Your task to perform on an android device: change the clock display to digital Image 0: 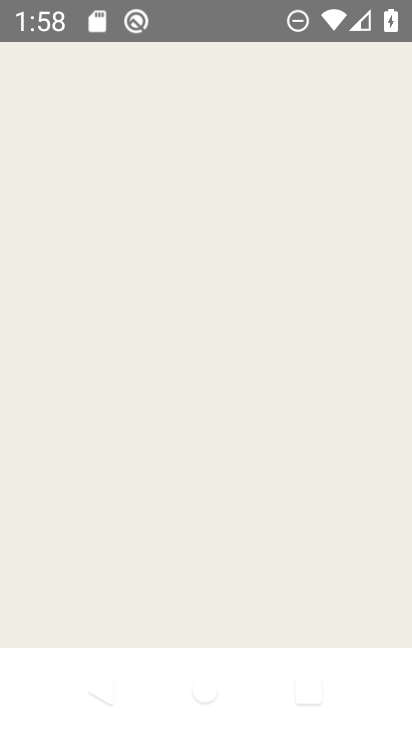
Step 0: press home button
Your task to perform on an android device: change the clock display to digital Image 1: 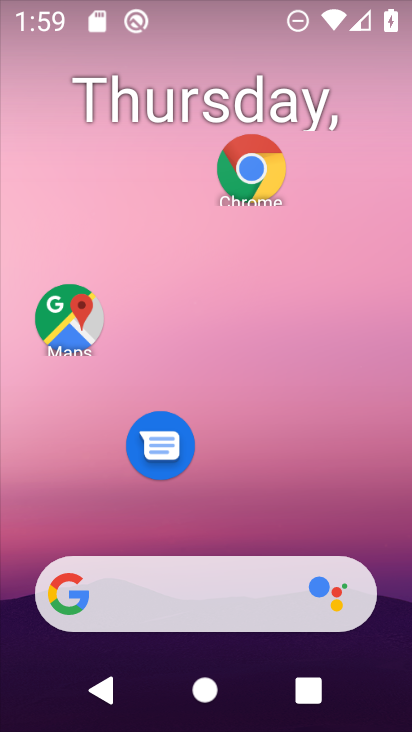
Step 1: drag from (238, 624) to (332, 99)
Your task to perform on an android device: change the clock display to digital Image 2: 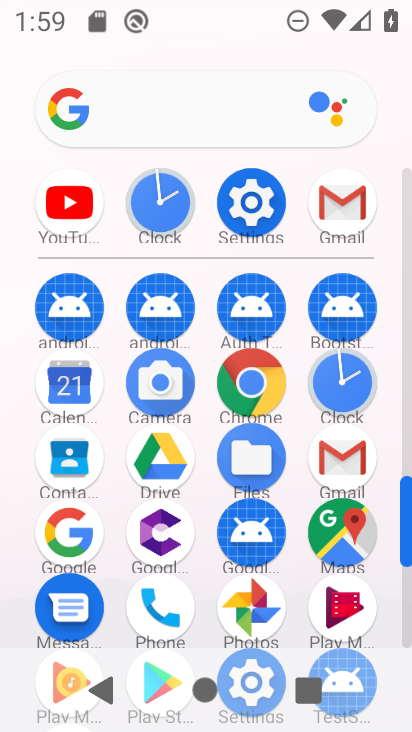
Step 2: click (261, 191)
Your task to perform on an android device: change the clock display to digital Image 3: 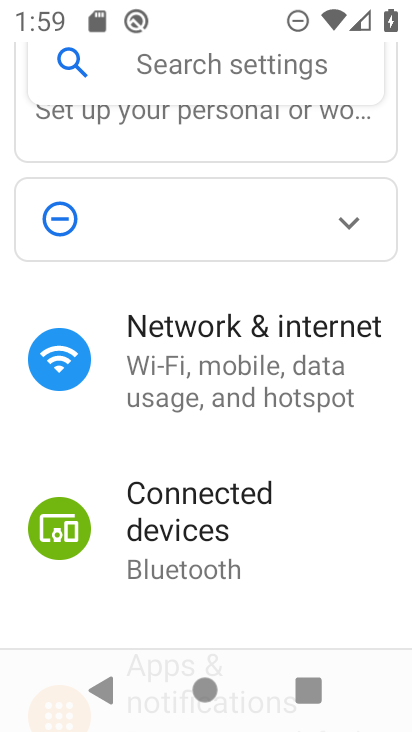
Step 3: drag from (172, 517) to (258, 340)
Your task to perform on an android device: change the clock display to digital Image 4: 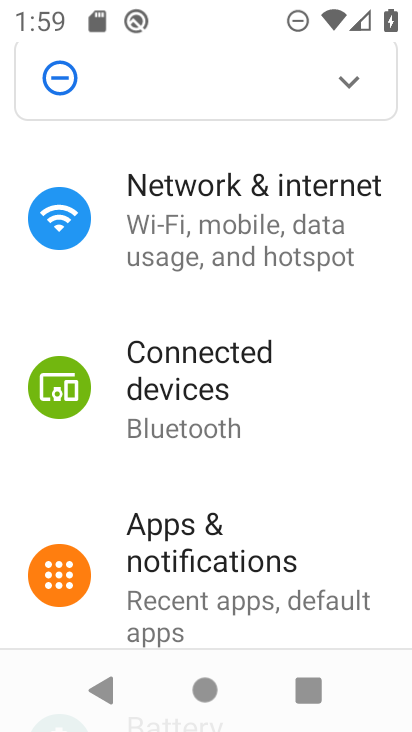
Step 4: drag from (163, 551) to (262, 359)
Your task to perform on an android device: change the clock display to digital Image 5: 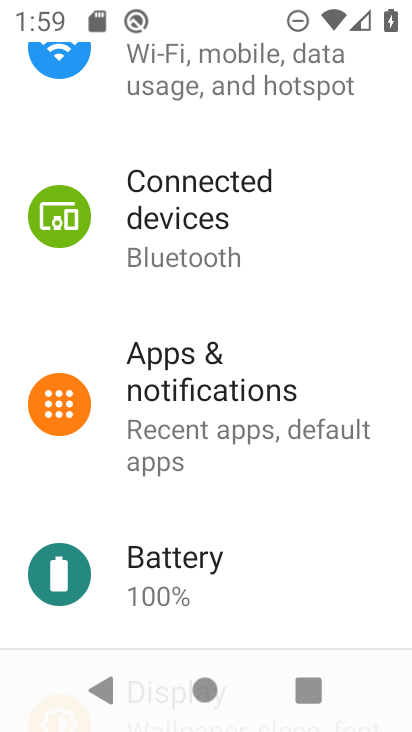
Step 5: drag from (192, 518) to (233, 334)
Your task to perform on an android device: change the clock display to digital Image 6: 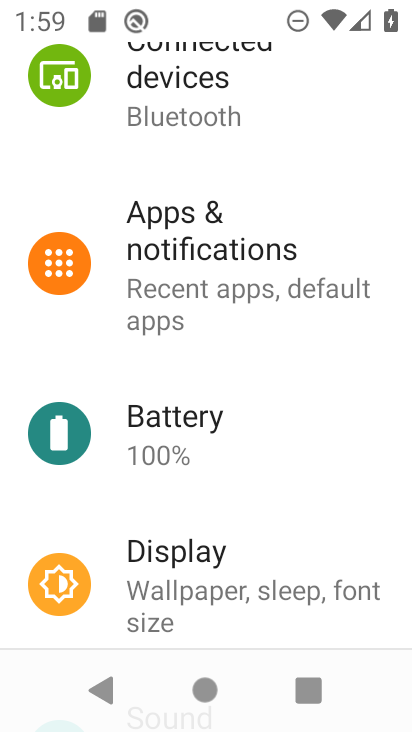
Step 6: click (165, 556)
Your task to perform on an android device: change the clock display to digital Image 7: 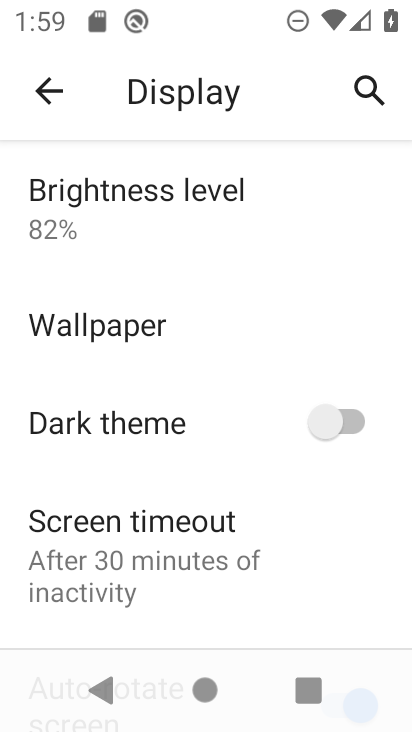
Step 7: drag from (174, 541) to (201, 354)
Your task to perform on an android device: change the clock display to digital Image 8: 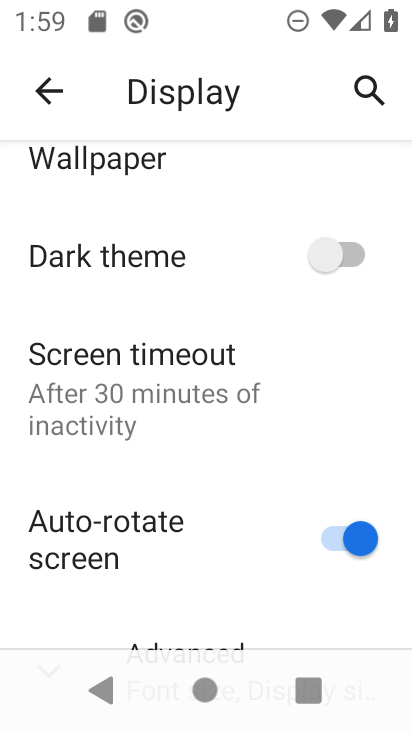
Step 8: press home button
Your task to perform on an android device: change the clock display to digital Image 9: 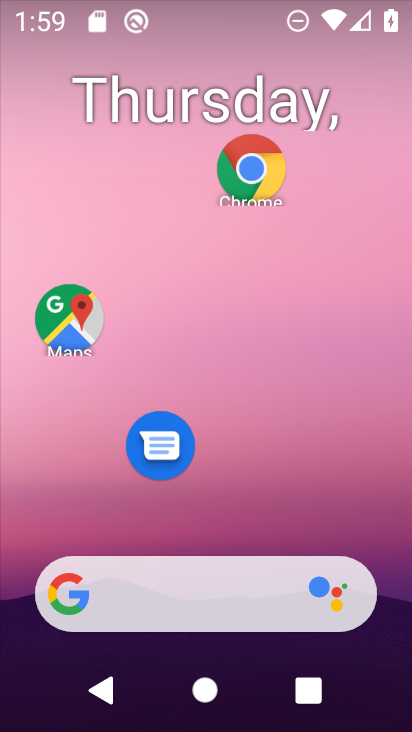
Step 9: drag from (256, 528) to (410, 87)
Your task to perform on an android device: change the clock display to digital Image 10: 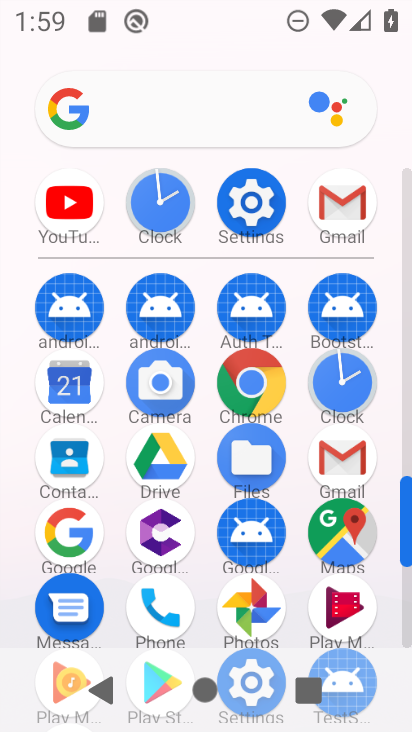
Step 10: click (335, 380)
Your task to perform on an android device: change the clock display to digital Image 11: 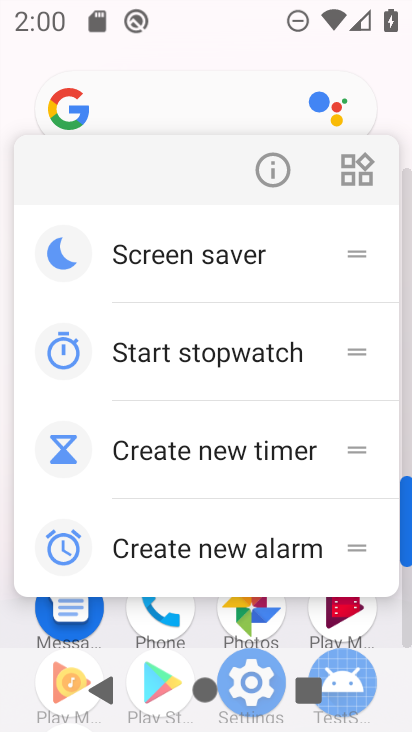
Step 11: drag from (306, 628) to (307, 573)
Your task to perform on an android device: change the clock display to digital Image 12: 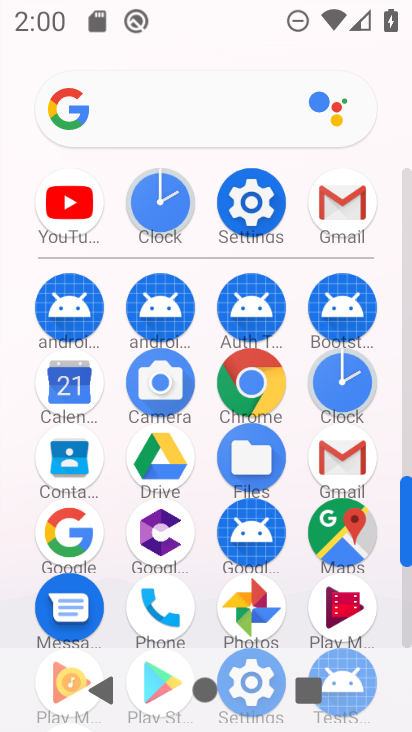
Step 12: click (336, 388)
Your task to perform on an android device: change the clock display to digital Image 13: 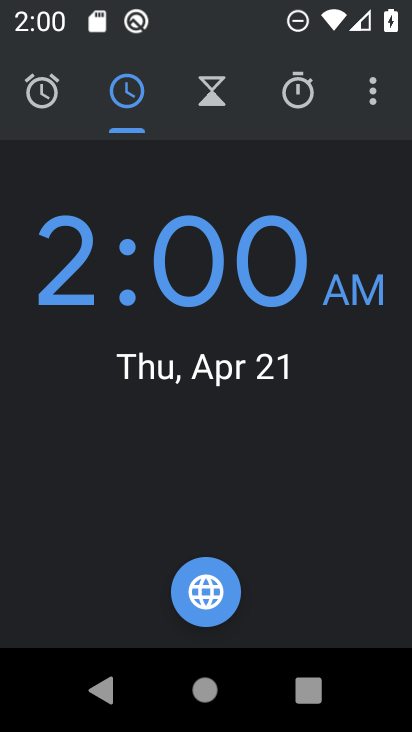
Step 13: click (366, 105)
Your task to perform on an android device: change the clock display to digital Image 14: 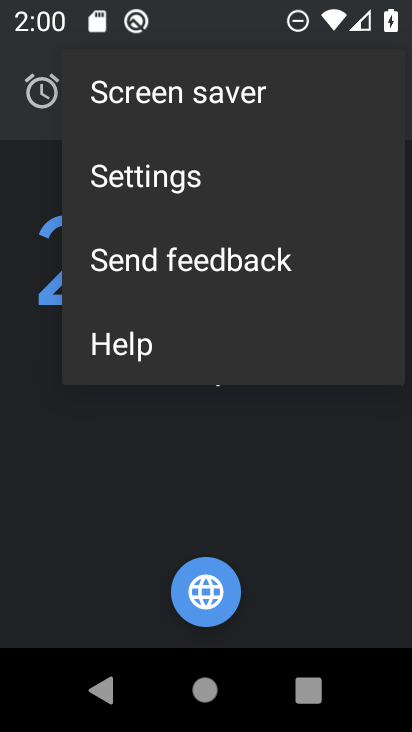
Step 14: click (200, 173)
Your task to perform on an android device: change the clock display to digital Image 15: 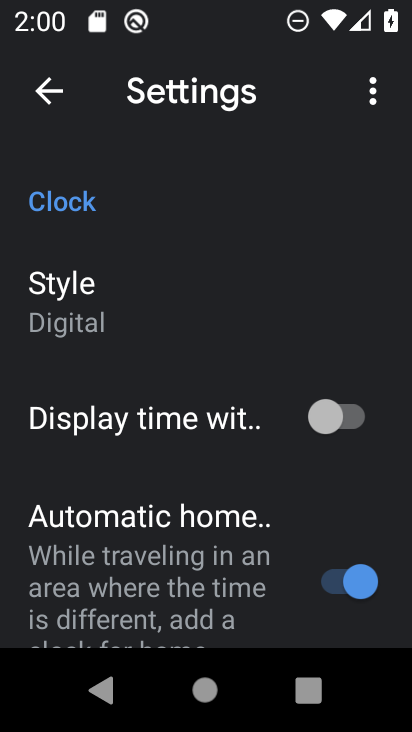
Step 15: click (112, 316)
Your task to perform on an android device: change the clock display to digital Image 16: 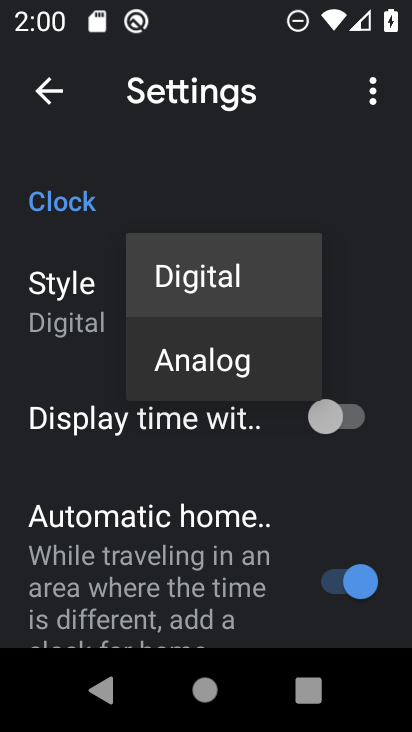
Step 16: click (211, 278)
Your task to perform on an android device: change the clock display to digital Image 17: 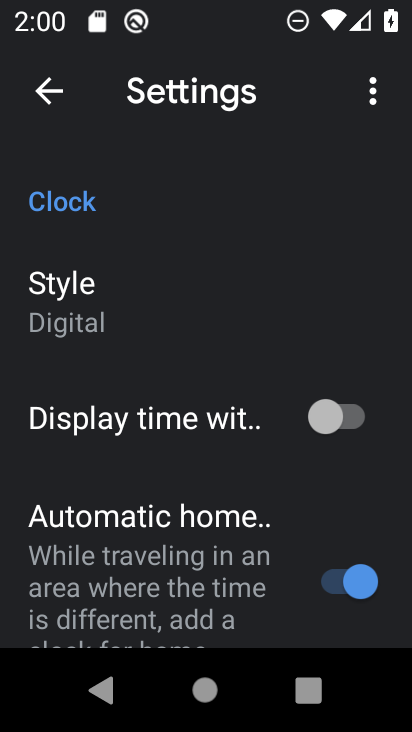
Step 17: task complete